Your task to perform on an android device: turn off location history Image 0: 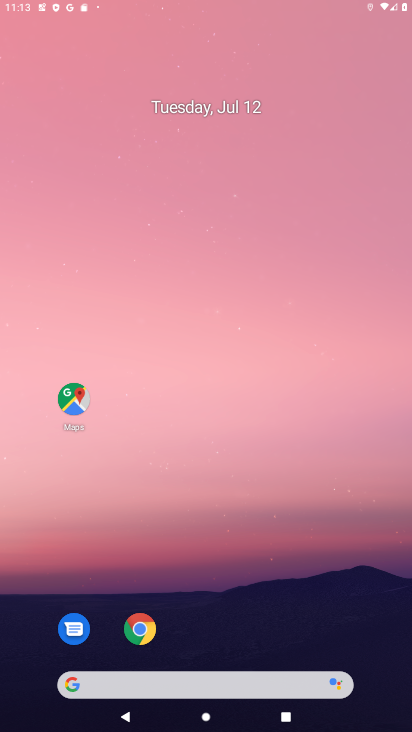
Step 0: drag from (255, 393) to (250, 339)
Your task to perform on an android device: turn off location history Image 1: 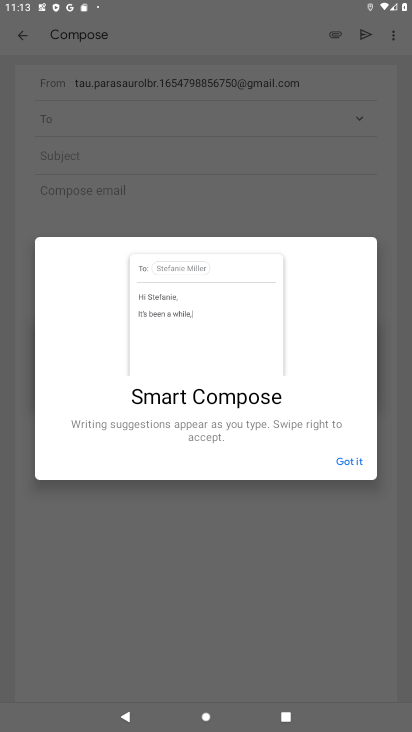
Step 1: click (342, 465)
Your task to perform on an android device: turn off location history Image 2: 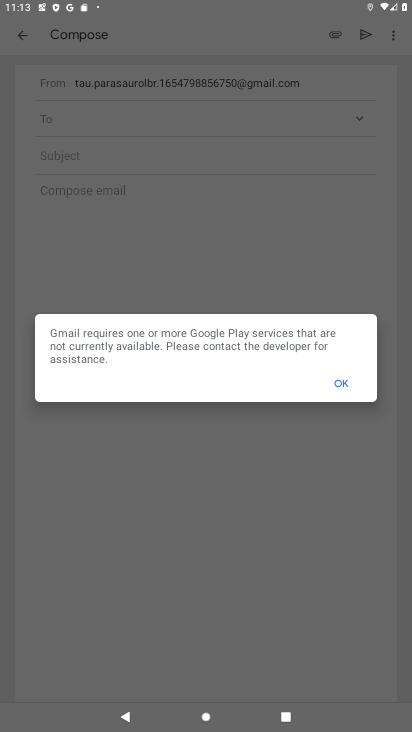
Step 2: press home button
Your task to perform on an android device: turn off location history Image 3: 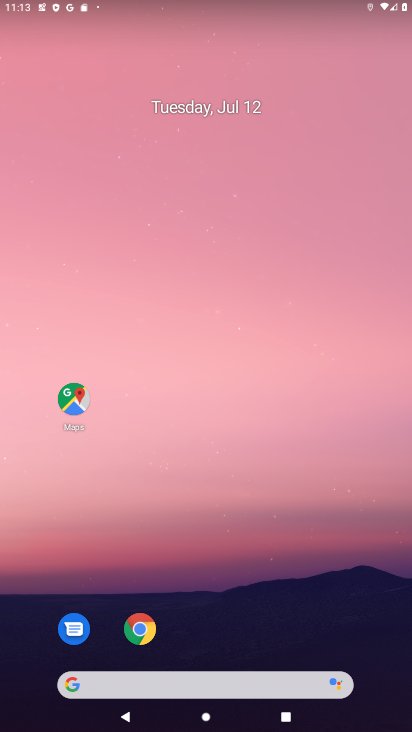
Step 3: drag from (250, 649) to (216, 166)
Your task to perform on an android device: turn off location history Image 4: 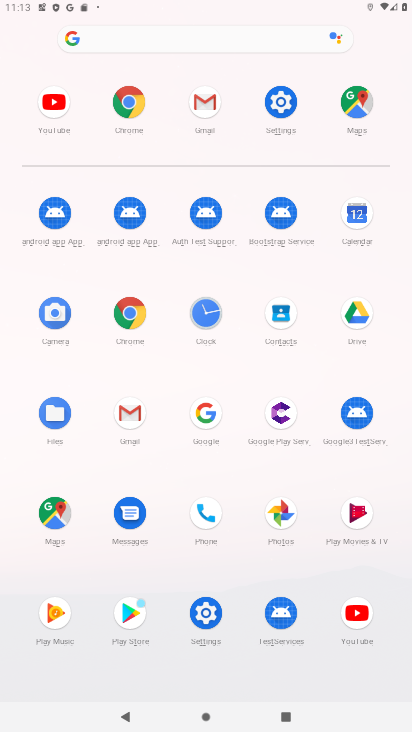
Step 4: click (264, 101)
Your task to perform on an android device: turn off location history Image 5: 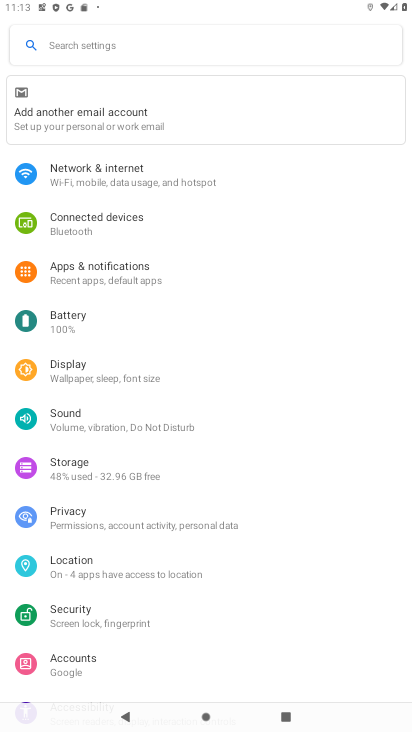
Step 5: click (100, 564)
Your task to perform on an android device: turn off location history Image 6: 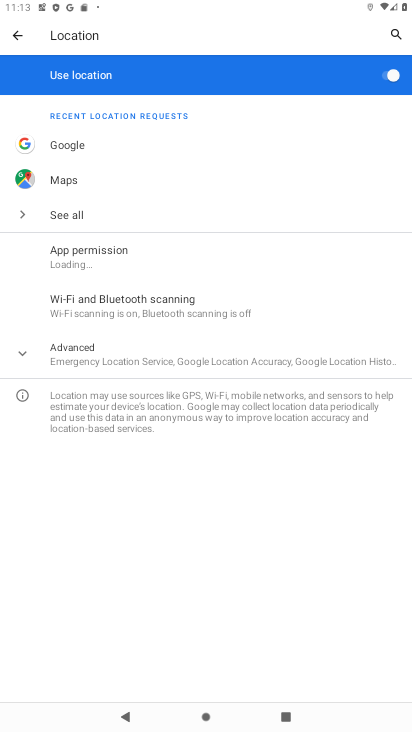
Step 6: click (163, 359)
Your task to perform on an android device: turn off location history Image 7: 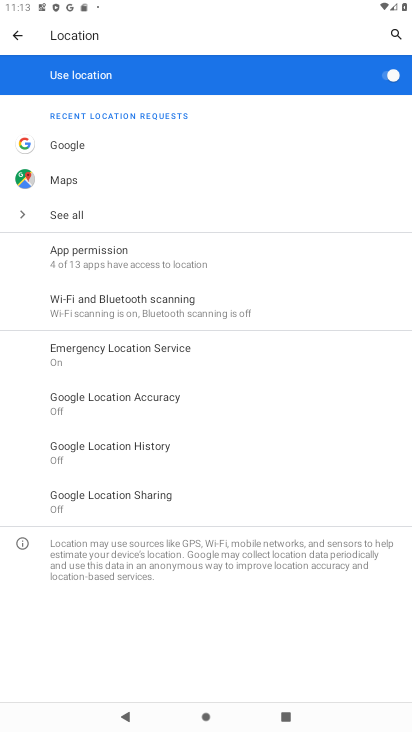
Step 7: click (172, 449)
Your task to perform on an android device: turn off location history Image 8: 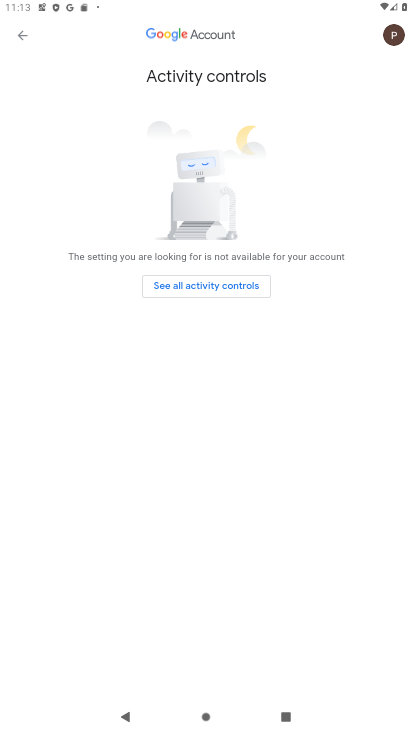
Step 8: task complete